Your task to perform on an android device: snooze an email in the gmail app Image 0: 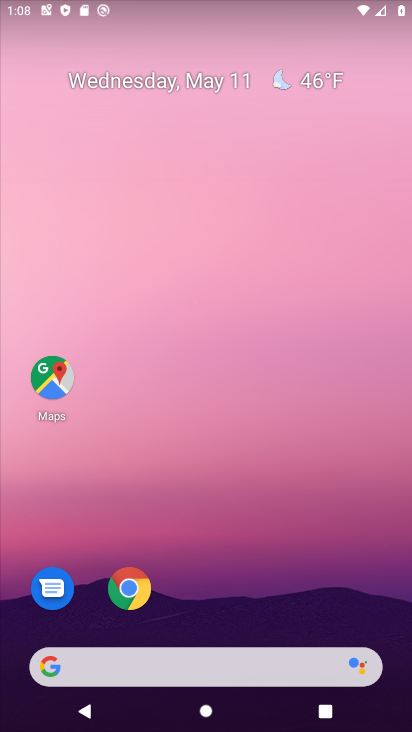
Step 0: drag from (266, 602) to (266, 166)
Your task to perform on an android device: snooze an email in the gmail app Image 1: 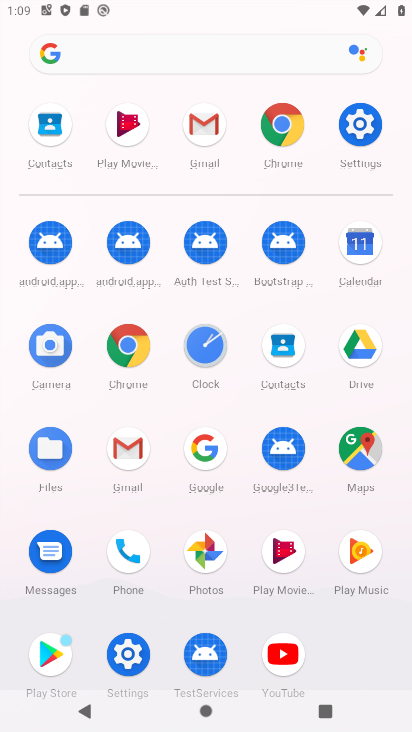
Step 1: click (128, 452)
Your task to perform on an android device: snooze an email in the gmail app Image 2: 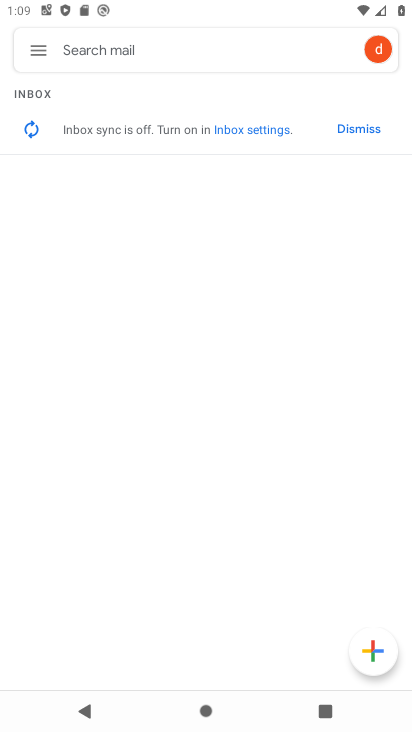
Step 2: click (45, 49)
Your task to perform on an android device: snooze an email in the gmail app Image 3: 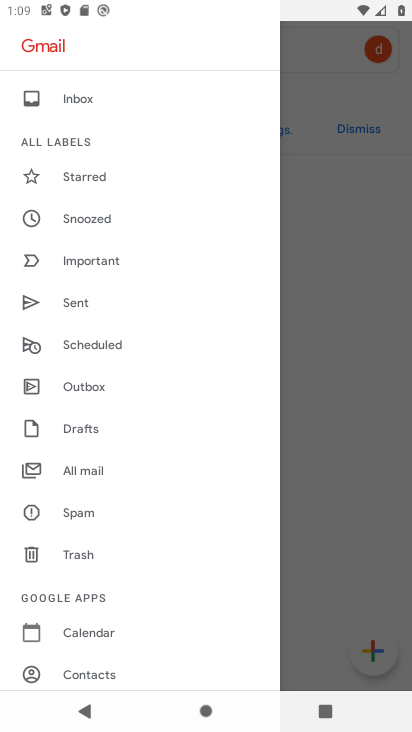
Step 3: click (79, 111)
Your task to perform on an android device: snooze an email in the gmail app Image 4: 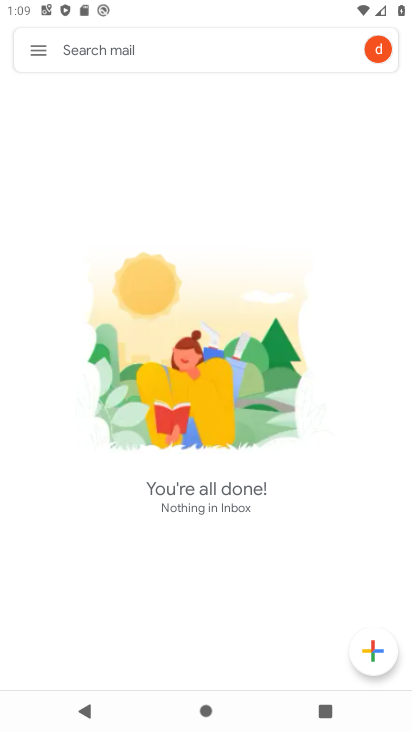
Step 4: task complete